Your task to perform on an android device: Go to notification settings Image 0: 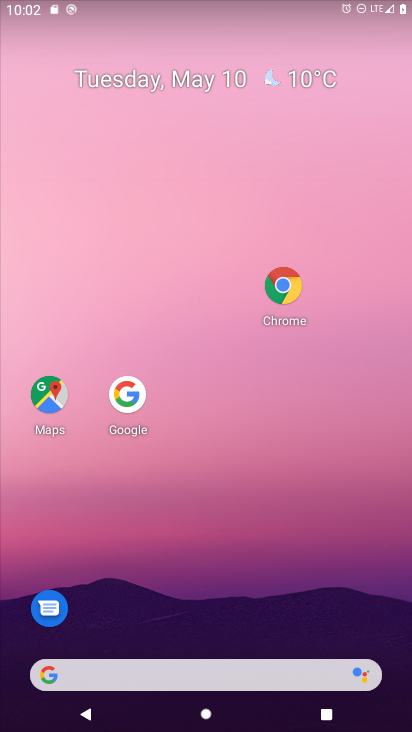
Step 0: drag from (209, 673) to (238, 143)
Your task to perform on an android device: Go to notification settings Image 1: 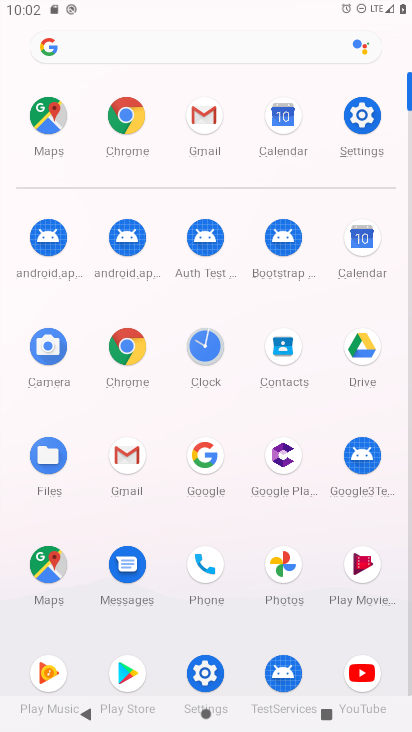
Step 1: click (356, 119)
Your task to perform on an android device: Go to notification settings Image 2: 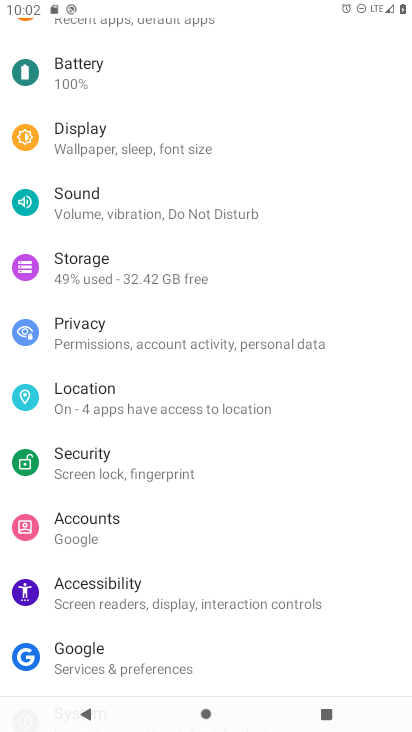
Step 2: drag from (263, 120) to (216, 495)
Your task to perform on an android device: Go to notification settings Image 3: 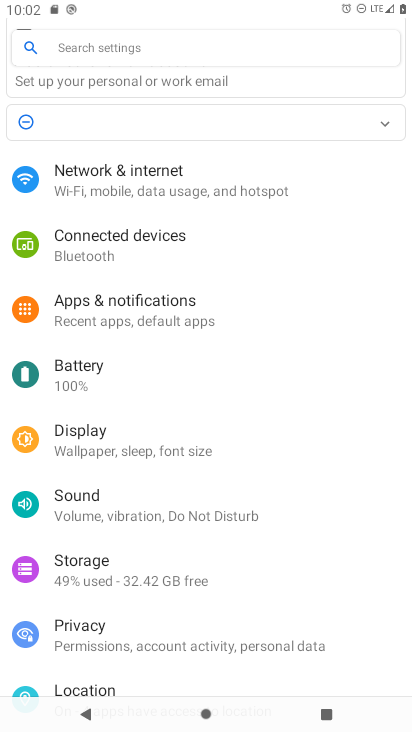
Step 3: click (127, 309)
Your task to perform on an android device: Go to notification settings Image 4: 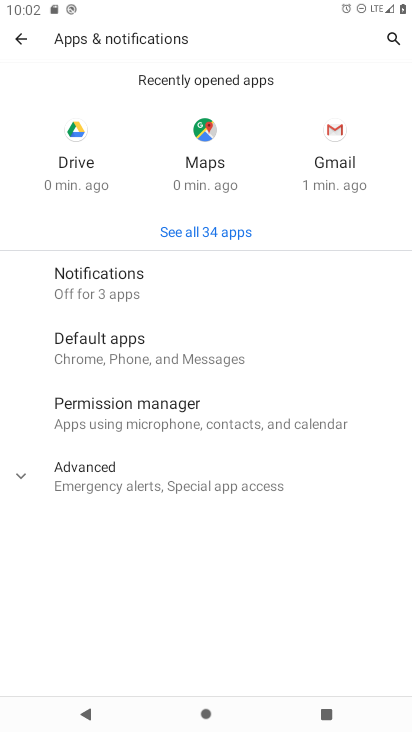
Step 4: click (102, 284)
Your task to perform on an android device: Go to notification settings Image 5: 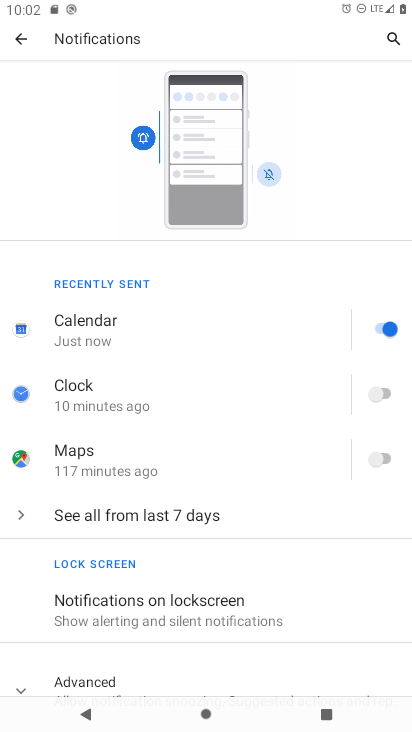
Step 5: task complete